Your task to perform on an android device: set default search engine in the chrome app Image 0: 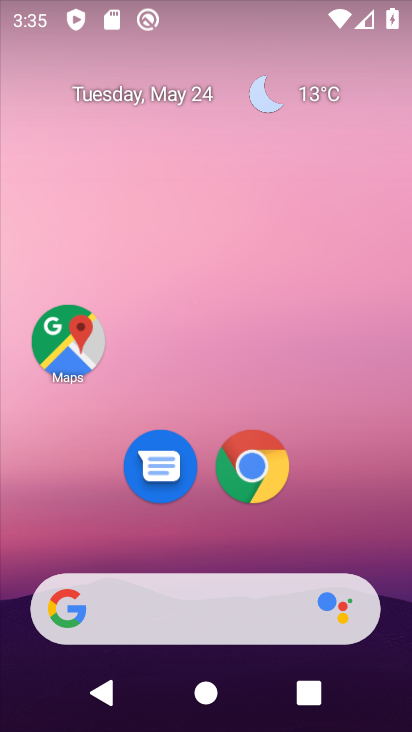
Step 0: click (253, 460)
Your task to perform on an android device: set default search engine in the chrome app Image 1: 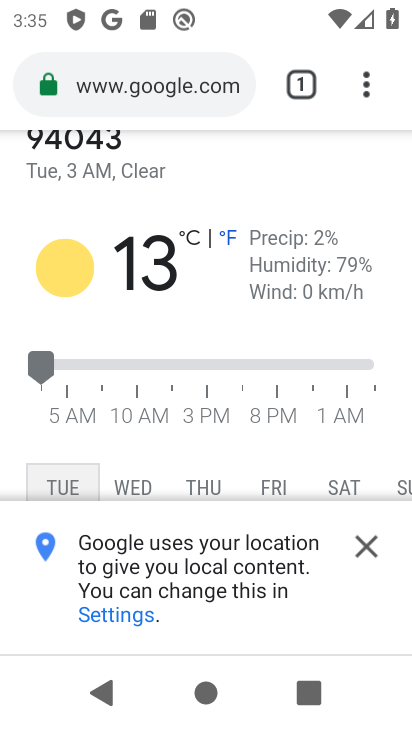
Step 1: click (367, 85)
Your task to perform on an android device: set default search engine in the chrome app Image 2: 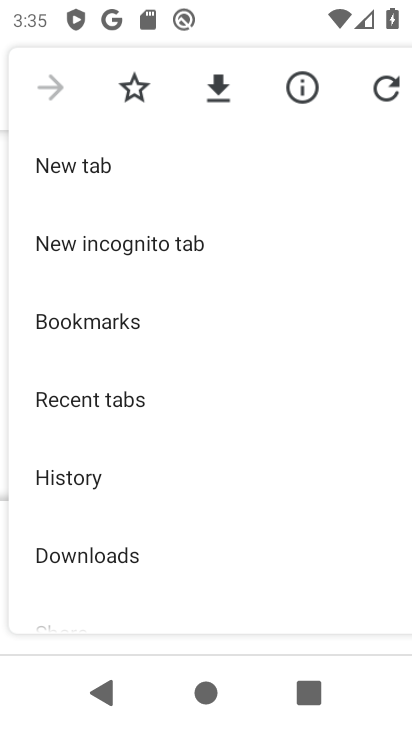
Step 2: drag from (208, 602) to (254, 170)
Your task to perform on an android device: set default search engine in the chrome app Image 3: 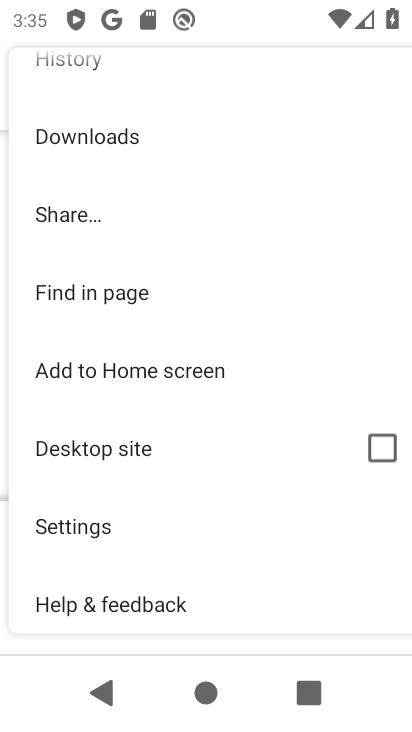
Step 3: drag from (180, 489) to (301, 100)
Your task to perform on an android device: set default search engine in the chrome app Image 4: 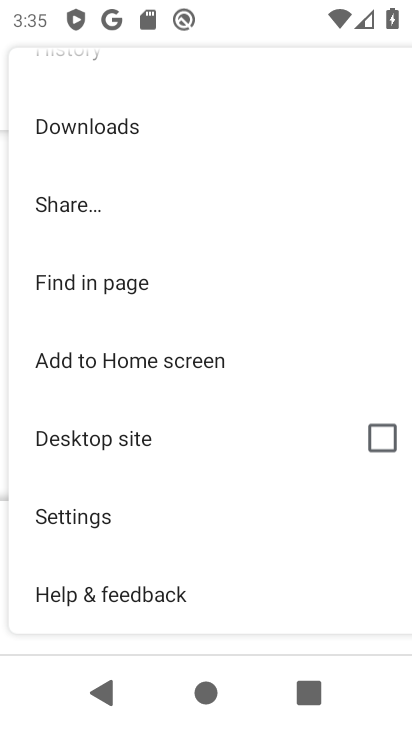
Step 4: click (106, 516)
Your task to perform on an android device: set default search engine in the chrome app Image 5: 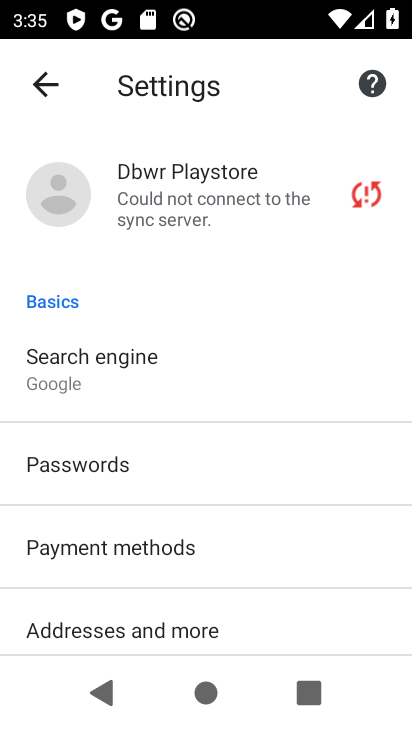
Step 5: click (142, 351)
Your task to perform on an android device: set default search engine in the chrome app Image 6: 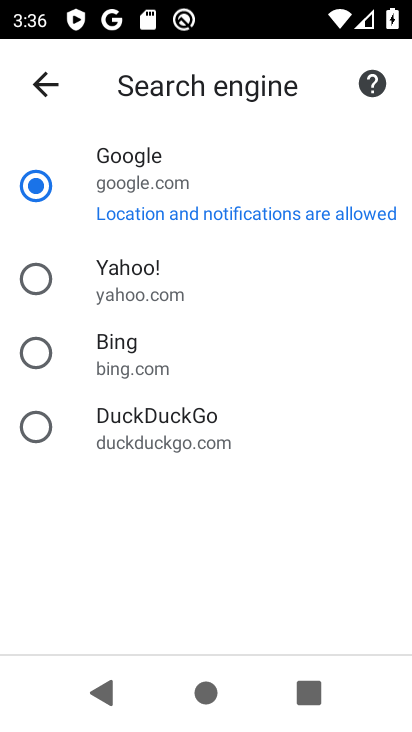
Step 6: task complete